Your task to perform on an android device: star an email in the gmail app Image 0: 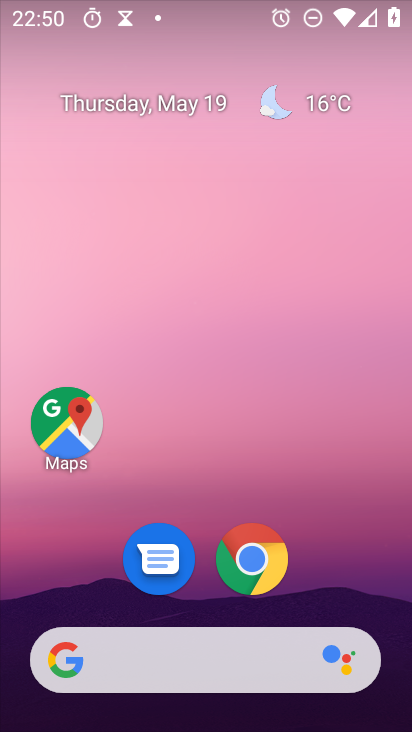
Step 0: drag from (212, 717) to (212, 154)
Your task to perform on an android device: star an email in the gmail app Image 1: 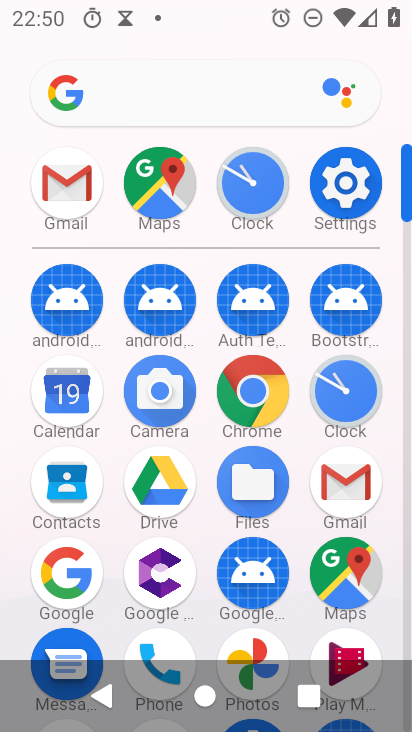
Step 1: click (340, 470)
Your task to perform on an android device: star an email in the gmail app Image 2: 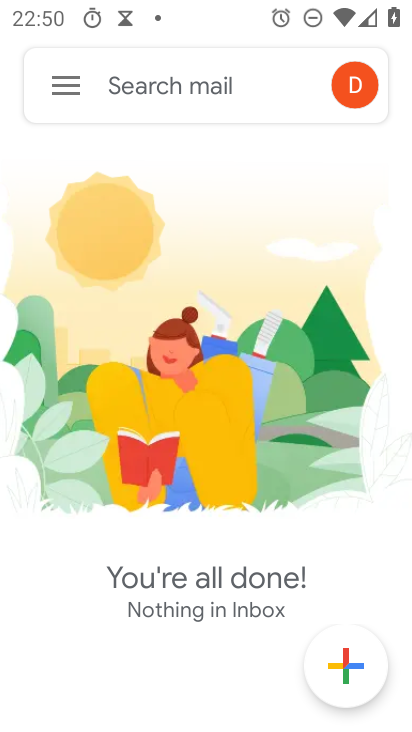
Step 2: task complete